Your task to perform on an android device: allow notifications from all sites in the chrome app Image 0: 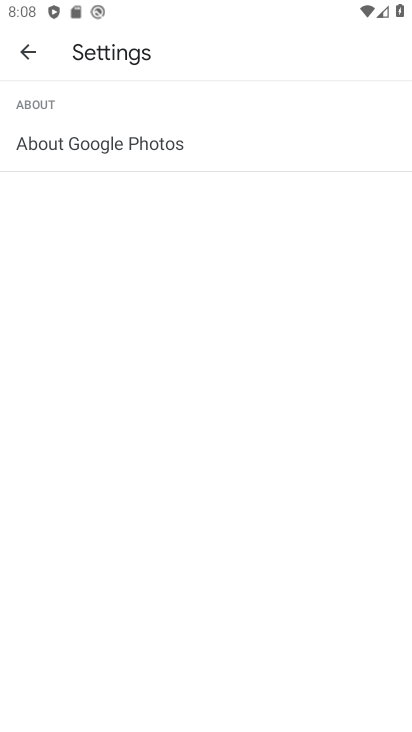
Step 0: press home button
Your task to perform on an android device: allow notifications from all sites in the chrome app Image 1: 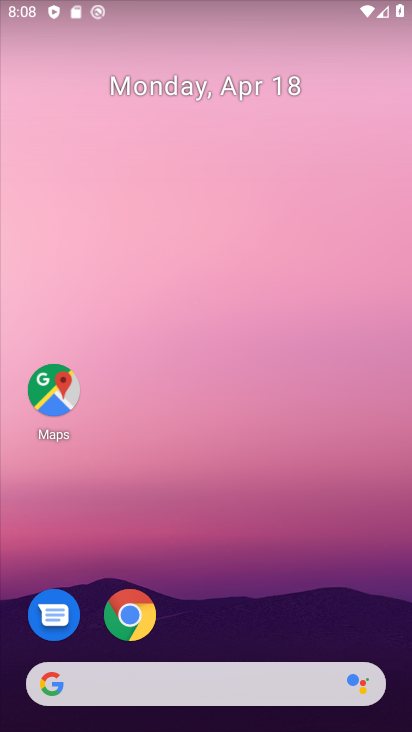
Step 1: click (138, 618)
Your task to perform on an android device: allow notifications from all sites in the chrome app Image 2: 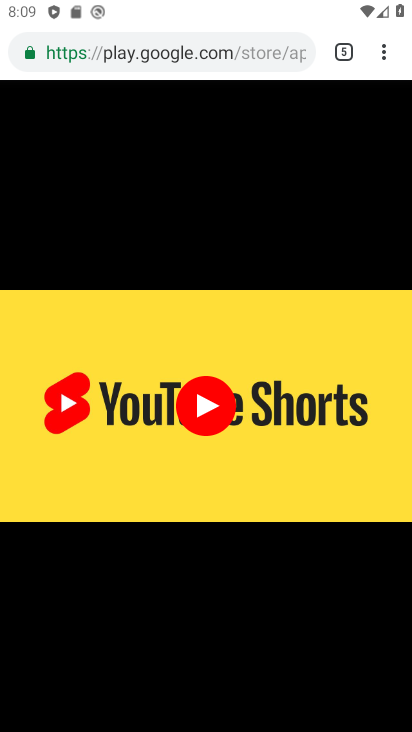
Step 2: click (382, 51)
Your task to perform on an android device: allow notifications from all sites in the chrome app Image 3: 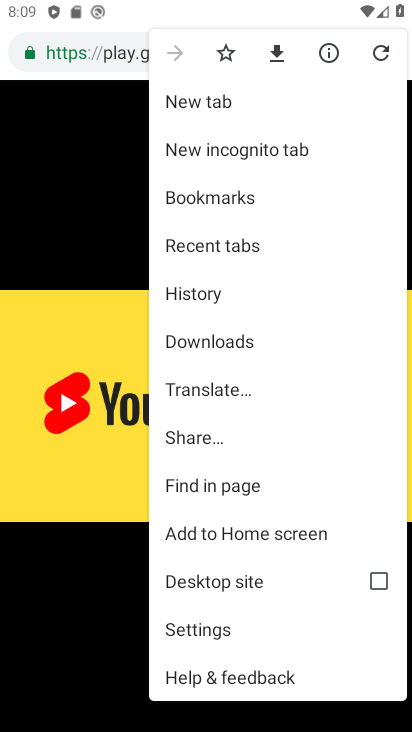
Step 3: click (236, 626)
Your task to perform on an android device: allow notifications from all sites in the chrome app Image 4: 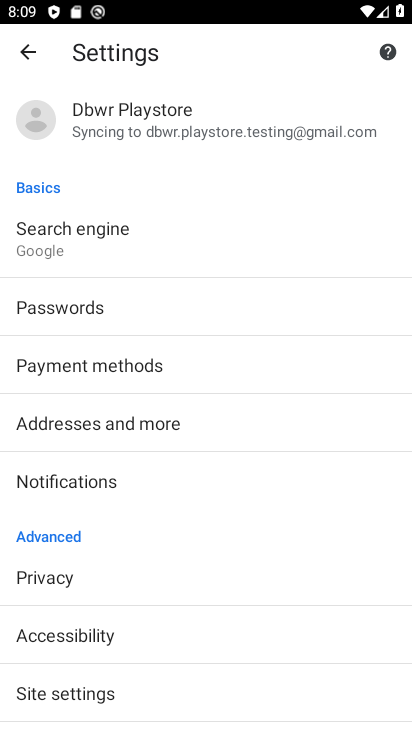
Step 4: click (197, 475)
Your task to perform on an android device: allow notifications from all sites in the chrome app Image 5: 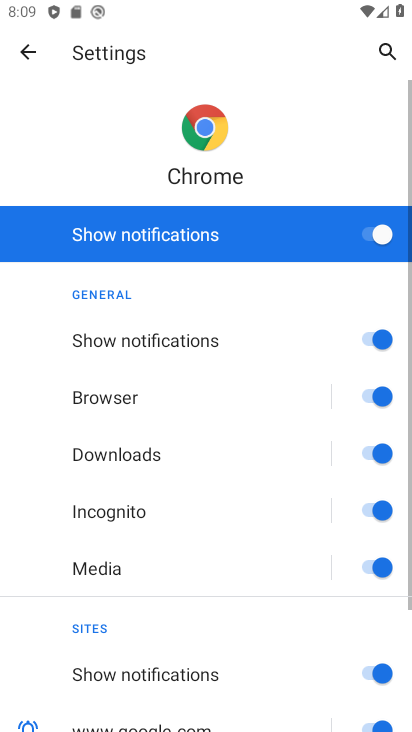
Step 5: task complete